Your task to perform on an android device: What's the weather today? Image 0: 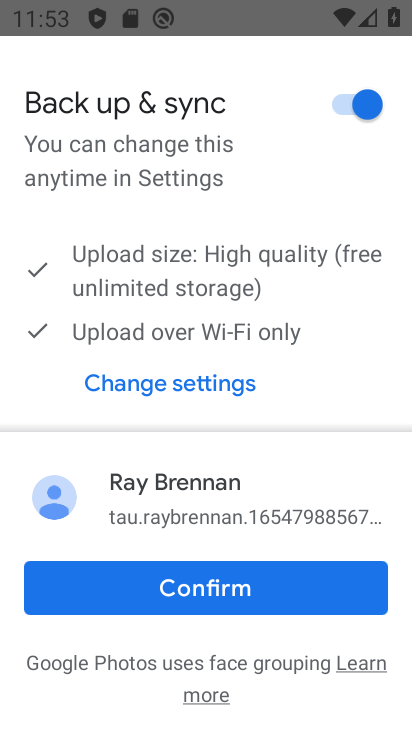
Step 0: press home button
Your task to perform on an android device: What's the weather today? Image 1: 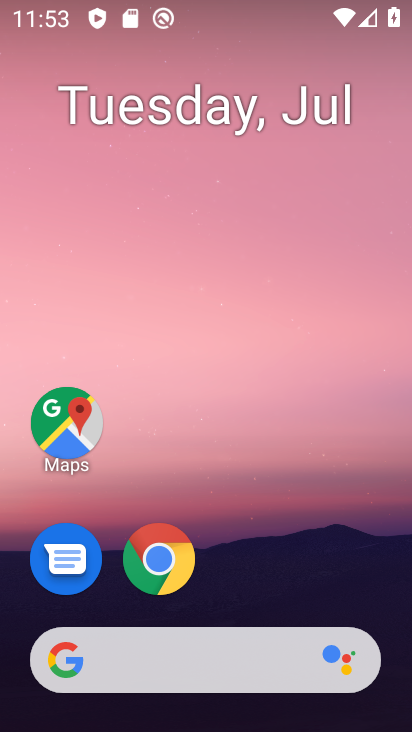
Step 1: click (187, 662)
Your task to perform on an android device: What's the weather today? Image 2: 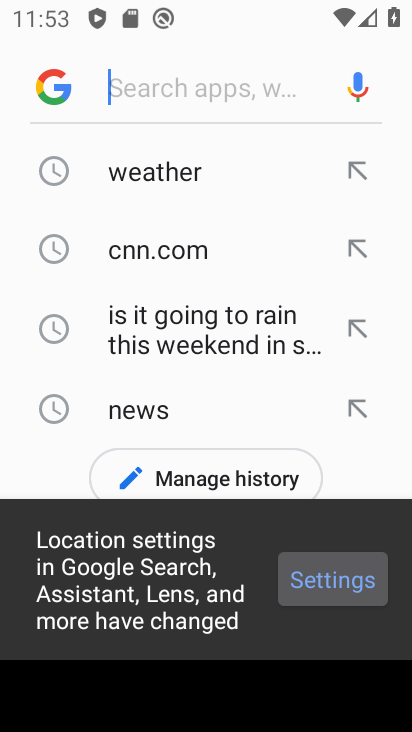
Step 2: click (126, 172)
Your task to perform on an android device: What's the weather today? Image 3: 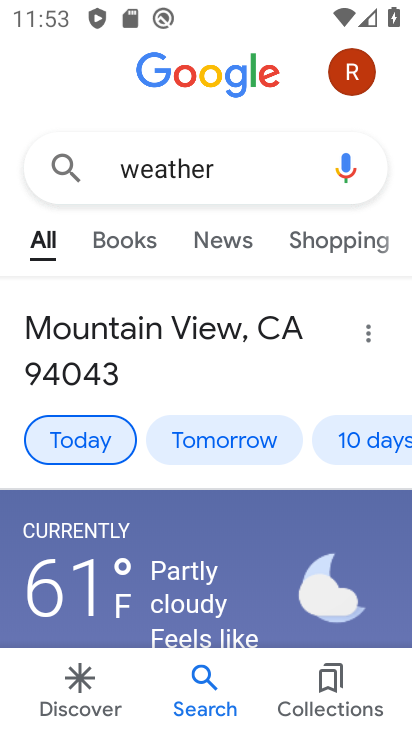
Step 3: task complete